Your task to perform on an android device: Empty the shopping cart on ebay.com. Search for asus rog on ebay.com, select the first entry, and add it to the cart. Image 0: 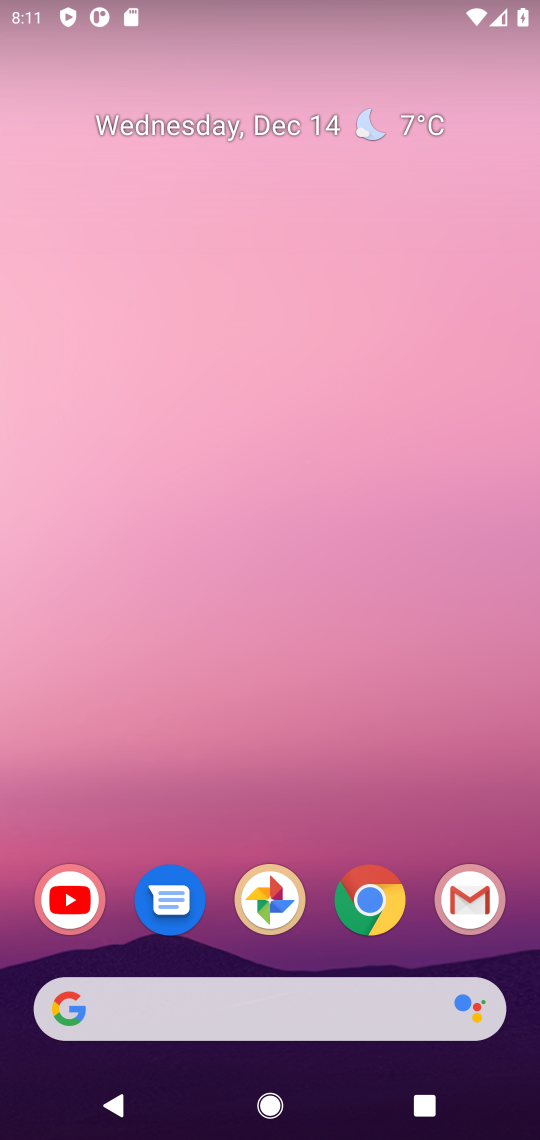
Step 0: drag from (238, 951) to (225, 42)
Your task to perform on an android device: Empty the shopping cart on ebay.com. Search for asus rog on ebay.com, select the first entry, and add it to the cart. Image 1: 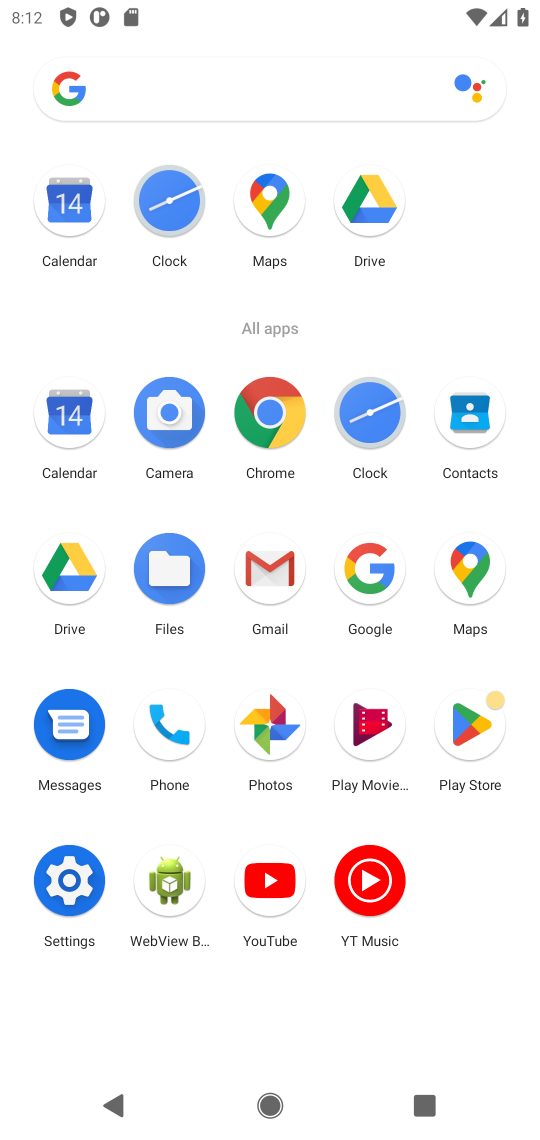
Step 1: click (357, 587)
Your task to perform on an android device: Empty the shopping cart on ebay.com. Search for asus rog on ebay.com, select the first entry, and add it to the cart. Image 2: 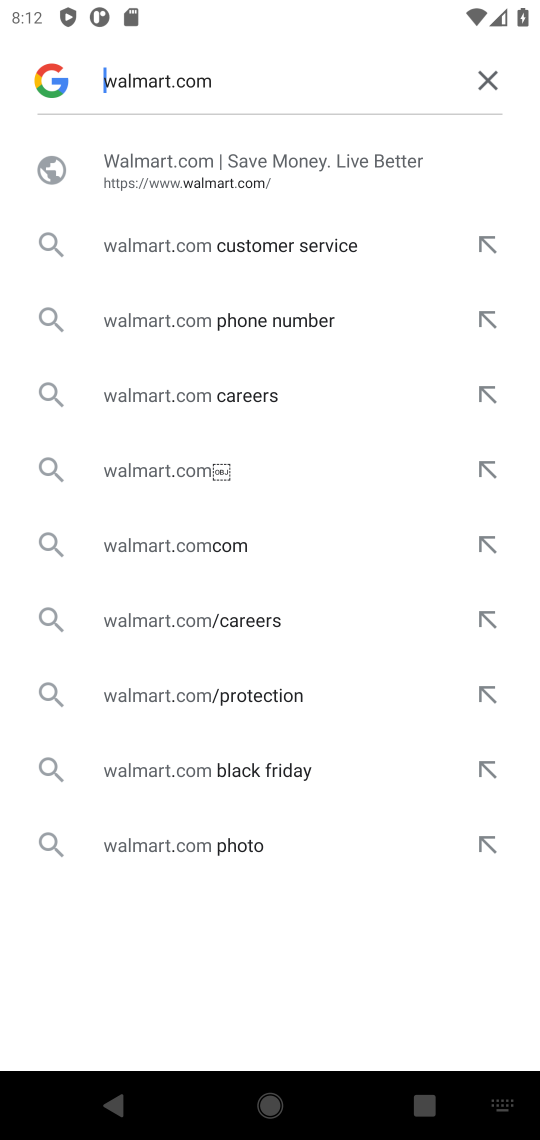
Step 2: click (477, 102)
Your task to perform on an android device: Empty the shopping cart on ebay.com. Search for asus rog on ebay.com, select the first entry, and add it to the cart. Image 3: 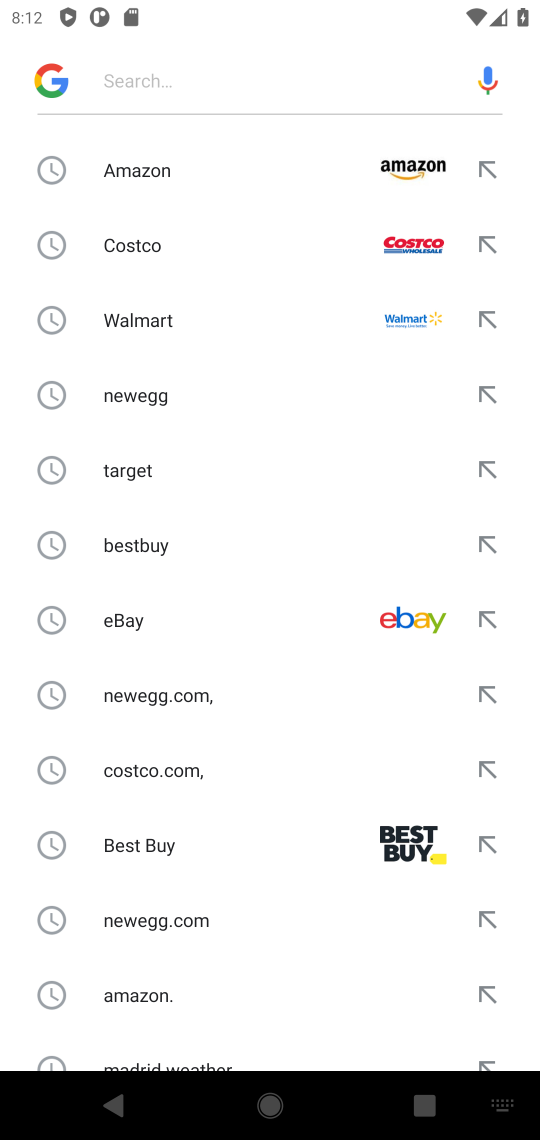
Step 3: click (157, 633)
Your task to perform on an android device: Empty the shopping cart on ebay.com. Search for asus rog on ebay.com, select the first entry, and add it to the cart. Image 4: 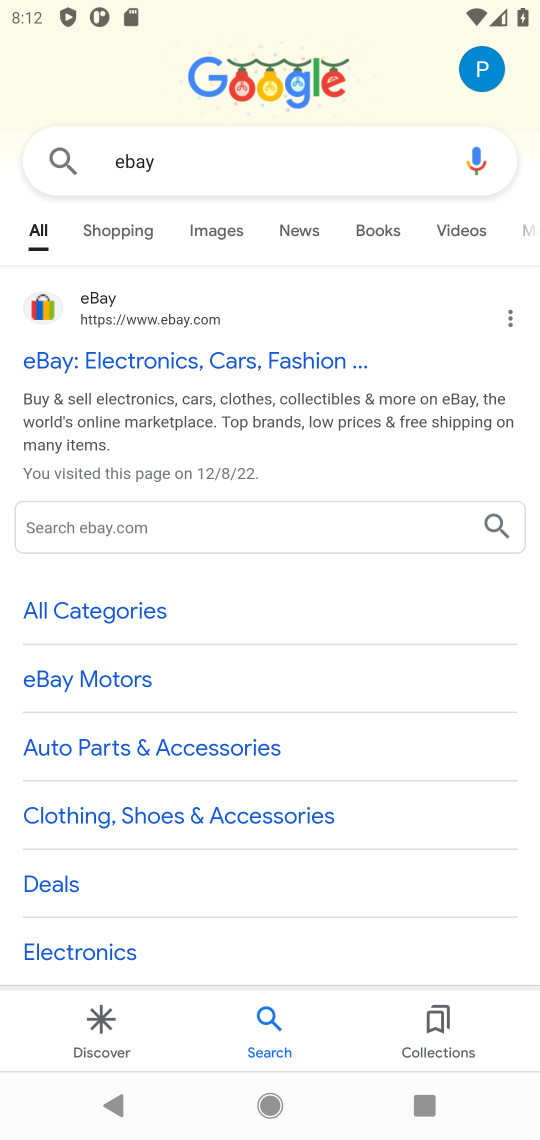
Step 4: click (108, 361)
Your task to perform on an android device: Empty the shopping cart on ebay.com. Search for asus rog on ebay.com, select the first entry, and add it to the cart. Image 5: 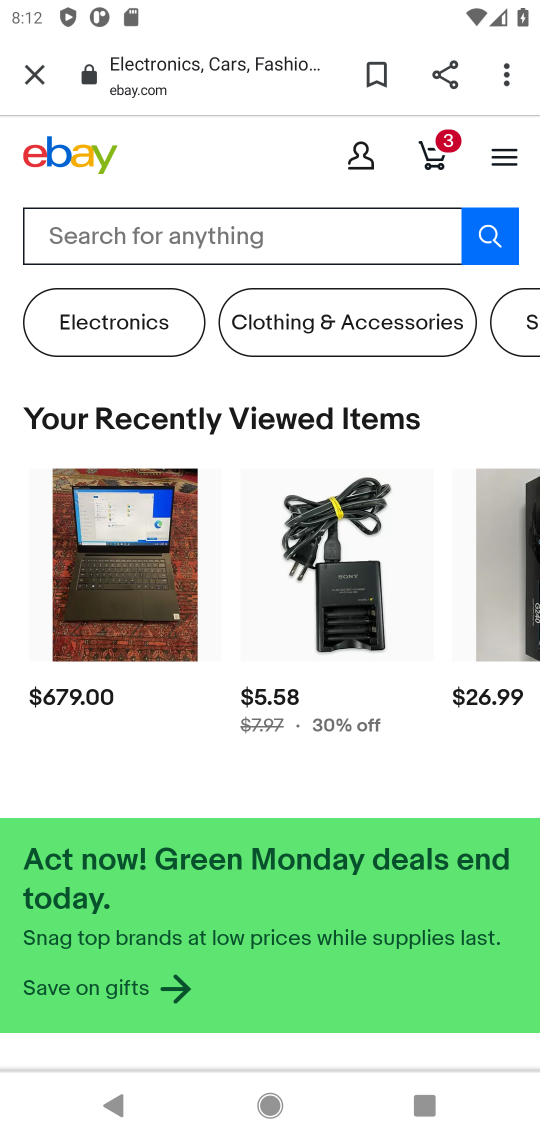
Step 5: click (437, 165)
Your task to perform on an android device: Empty the shopping cart on ebay.com. Search for asus rog on ebay.com, select the first entry, and add it to the cart. Image 6: 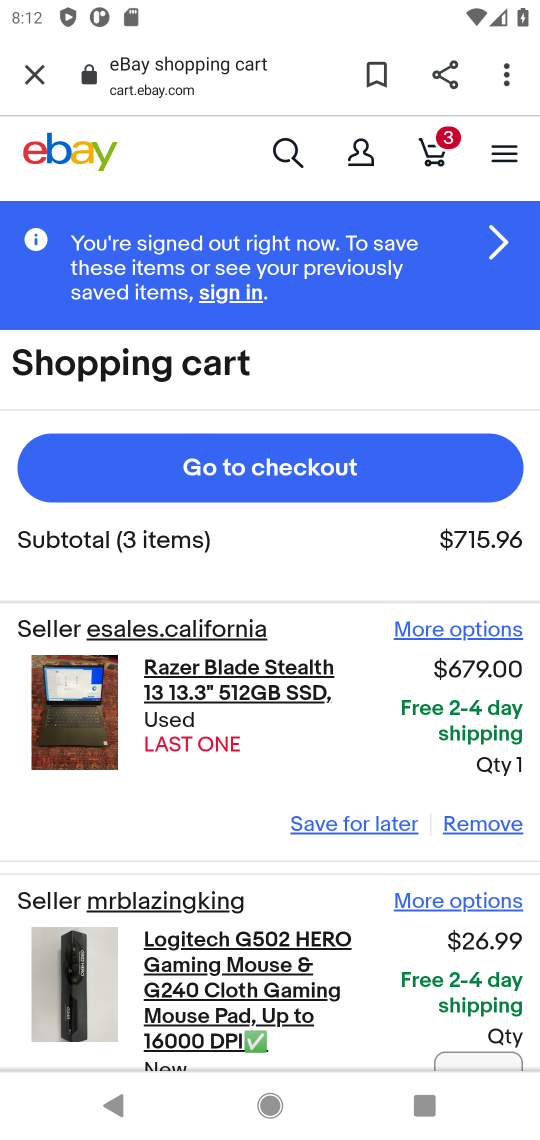
Step 6: click (473, 833)
Your task to perform on an android device: Empty the shopping cart on ebay.com. Search for asus rog on ebay.com, select the first entry, and add it to the cart. Image 7: 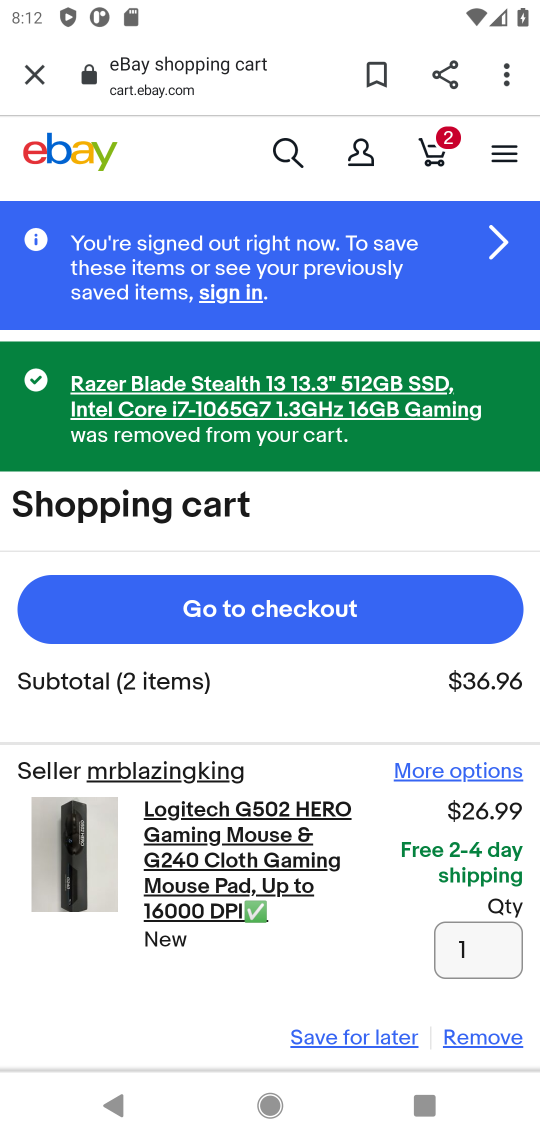
Step 7: click (479, 1038)
Your task to perform on an android device: Empty the shopping cart on ebay.com. Search for asus rog on ebay.com, select the first entry, and add it to the cart. Image 8: 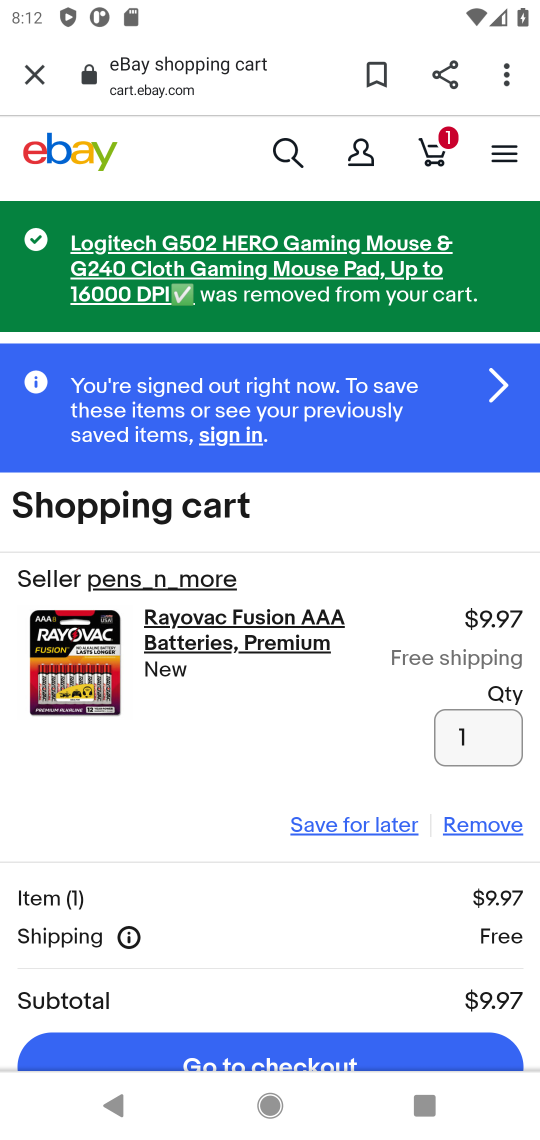
Step 8: click (469, 828)
Your task to perform on an android device: Empty the shopping cart on ebay.com. Search for asus rog on ebay.com, select the first entry, and add it to the cart. Image 9: 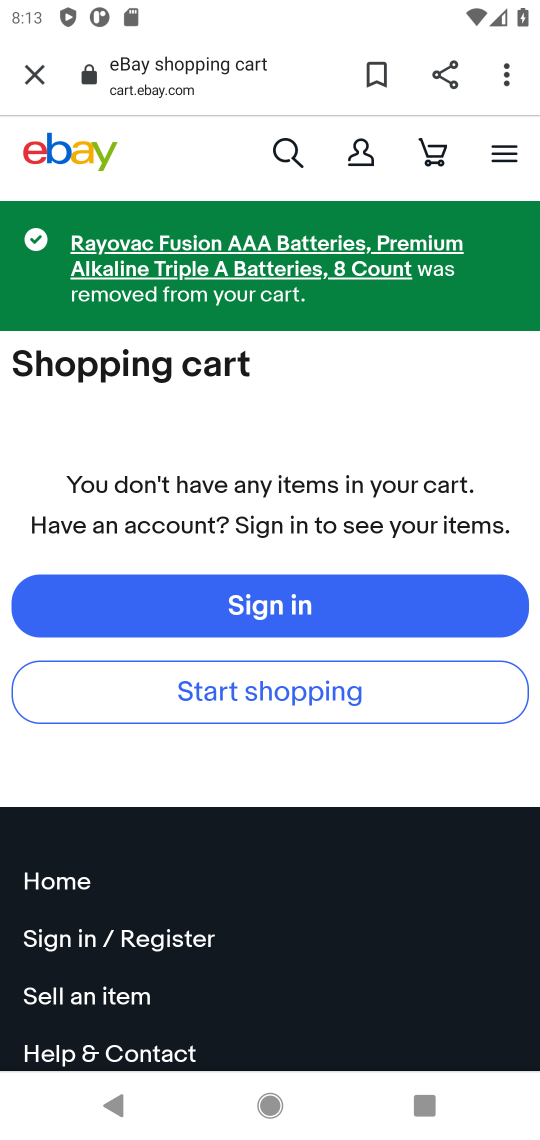
Step 9: click (299, 166)
Your task to perform on an android device: Empty the shopping cart on ebay.com. Search for asus rog on ebay.com, select the first entry, and add it to the cart. Image 10: 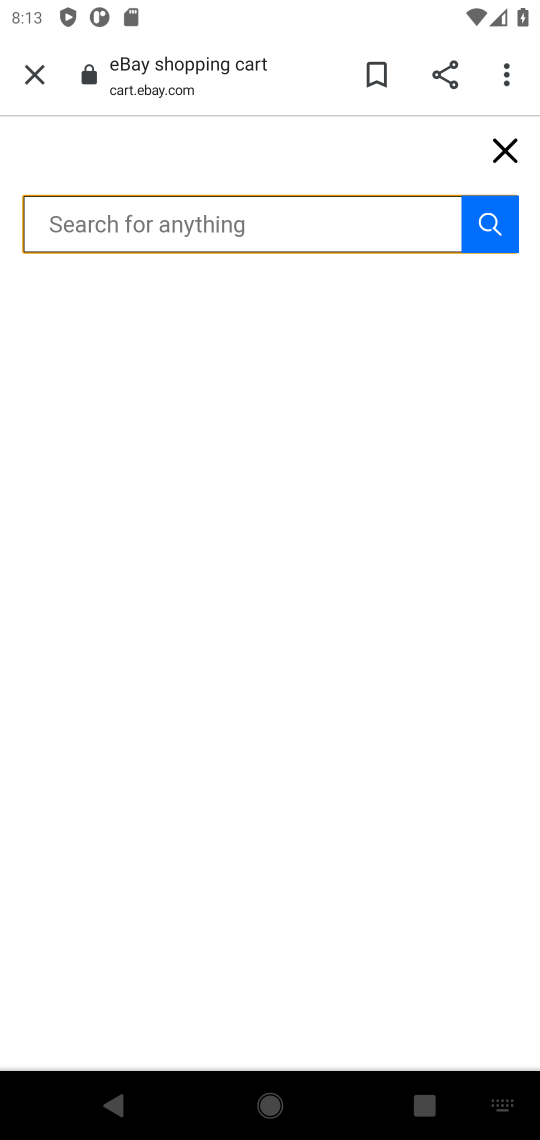
Step 10: type "cart"
Your task to perform on an android device: Empty the shopping cart on ebay.com. Search for asus rog on ebay.com, select the first entry, and add it to the cart. Image 11: 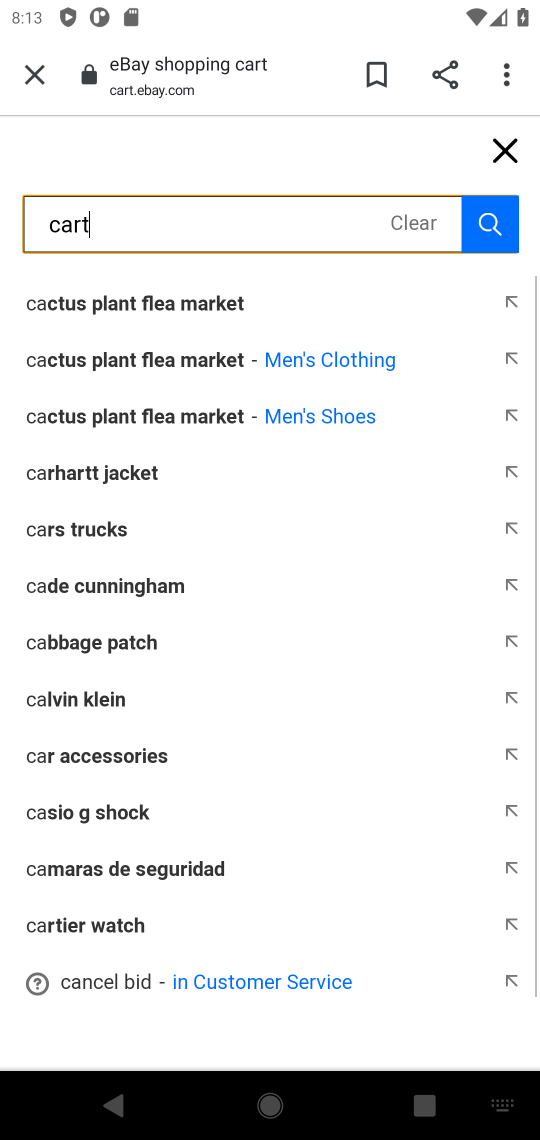
Step 11: type ""
Your task to perform on an android device: Empty the shopping cart on ebay.com. Search for asus rog on ebay.com, select the first entry, and add it to the cart. Image 12: 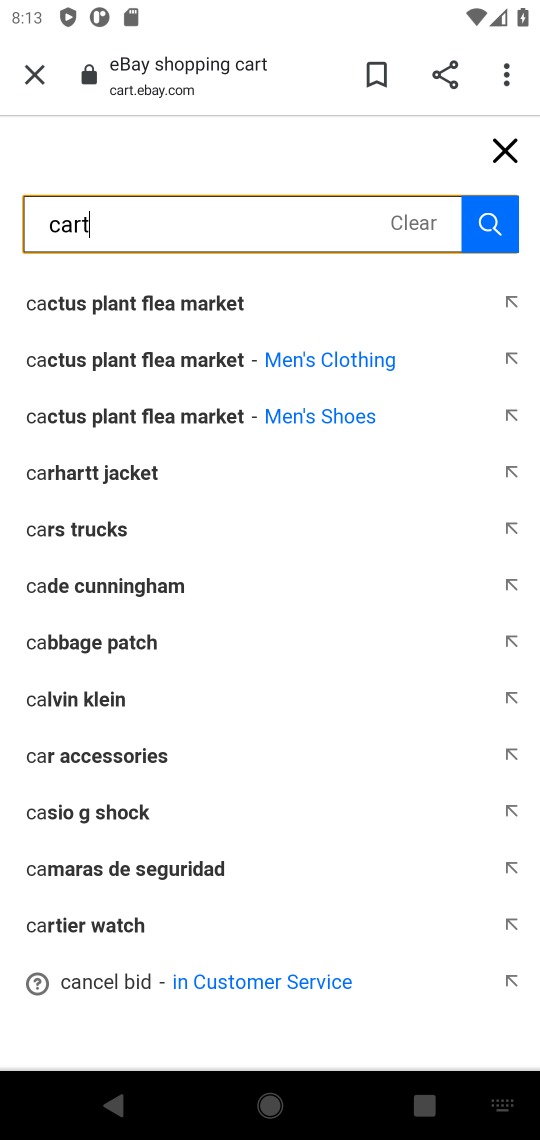
Step 12: click (391, 217)
Your task to perform on an android device: Empty the shopping cart on ebay.com. Search for asus rog on ebay.com, select the first entry, and add it to the cart. Image 13: 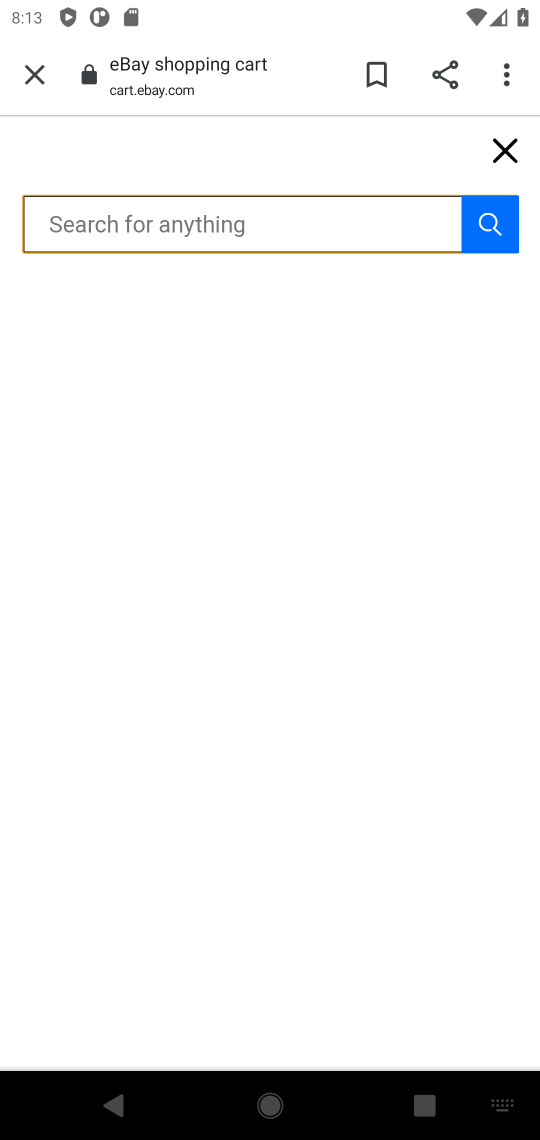
Step 13: type "asus rog"
Your task to perform on an android device: Empty the shopping cart on ebay.com. Search for asus rog on ebay.com, select the first entry, and add it to the cart. Image 14: 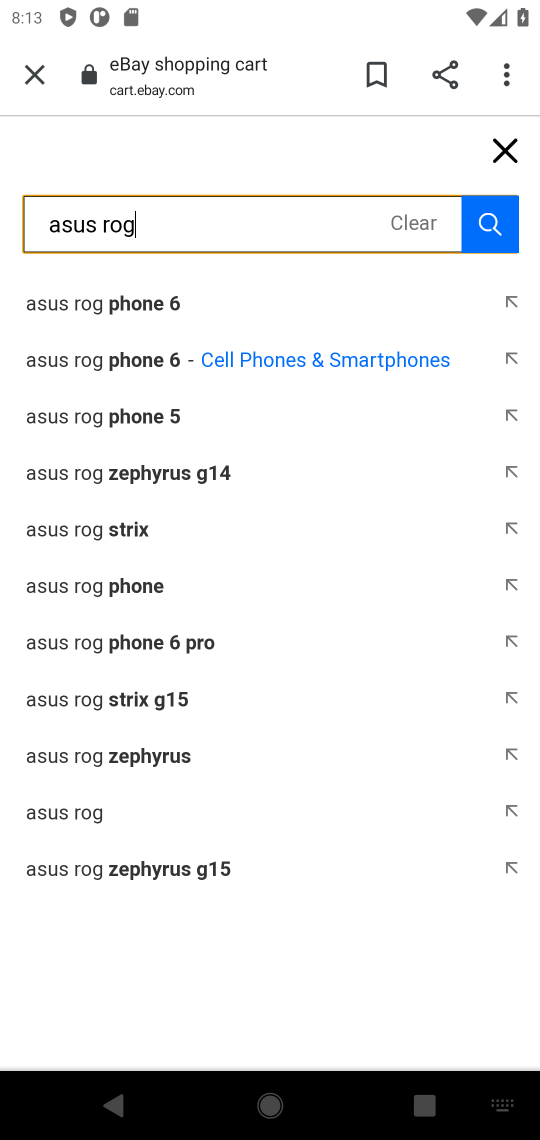
Step 14: click (497, 234)
Your task to perform on an android device: Empty the shopping cart on ebay.com. Search for asus rog on ebay.com, select the first entry, and add it to the cart. Image 15: 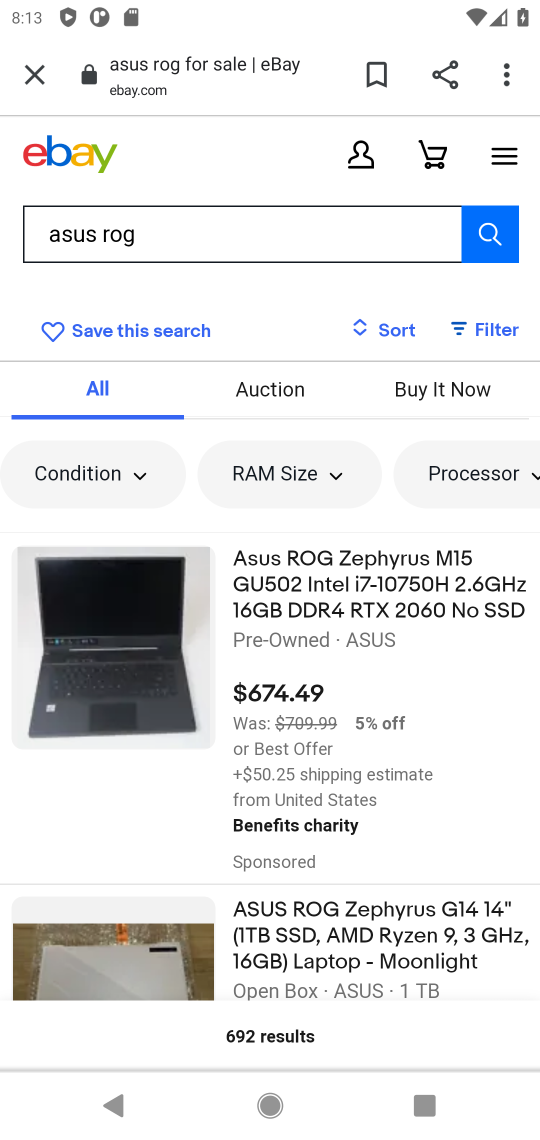
Step 15: click (304, 599)
Your task to perform on an android device: Empty the shopping cart on ebay.com. Search for asus rog on ebay.com, select the first entry, and add it to the cart. Image 16: 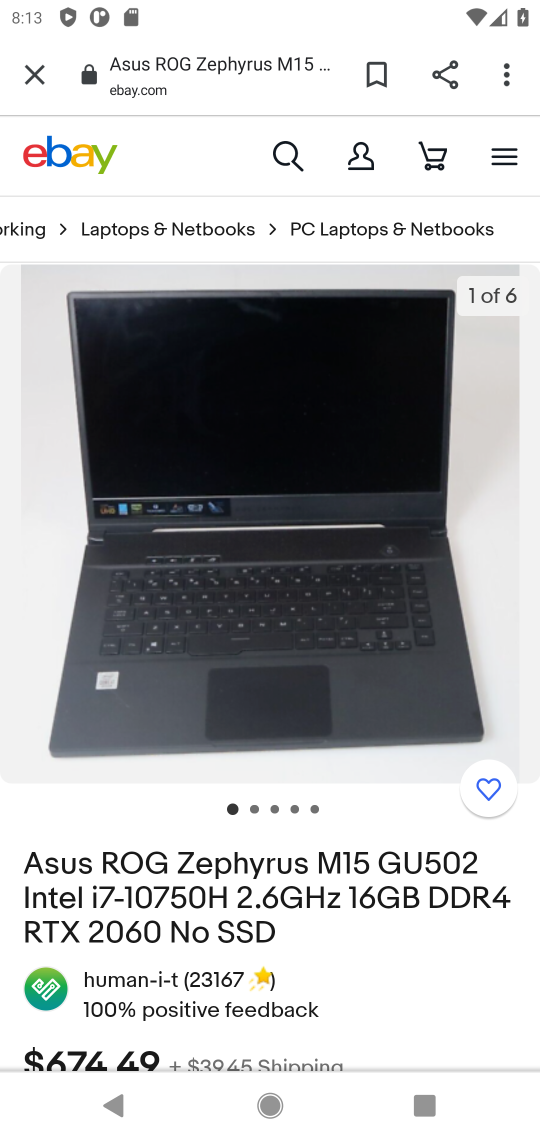
Step 16: drag from (320, 989) to (213, 267)
Your task to perform on an android device: Empty the shopping cart on ebay.com. Search for asus rog on ebay.com, select the first entry, and add it to the cart. Image 17: 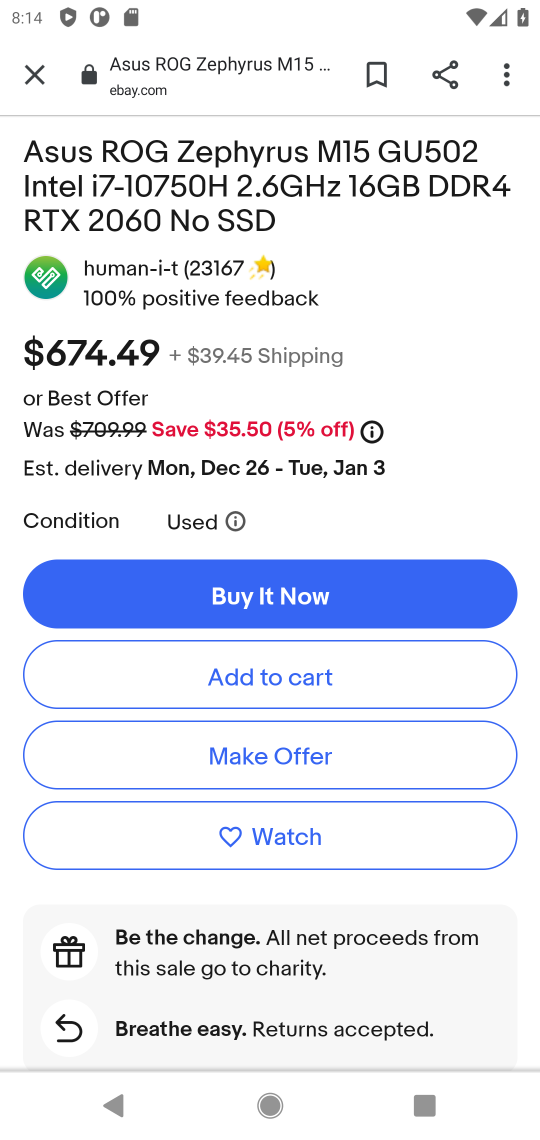
Step 17: click (235, 672)
Your task to perform on an android device: Empty the shopping cart on ebay.com. Search for asus rog on ebay.com, select the first entry, and add it to the cart. Image 18: 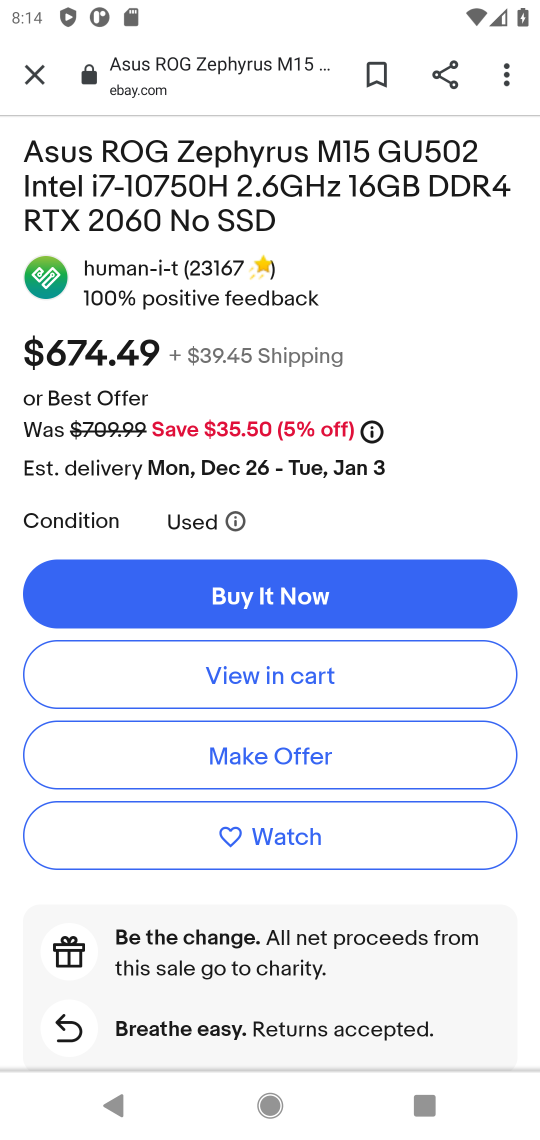
Step 18: task complete